Your task to perform on an android device: Search for sushi restaurants on Maps Image 0: 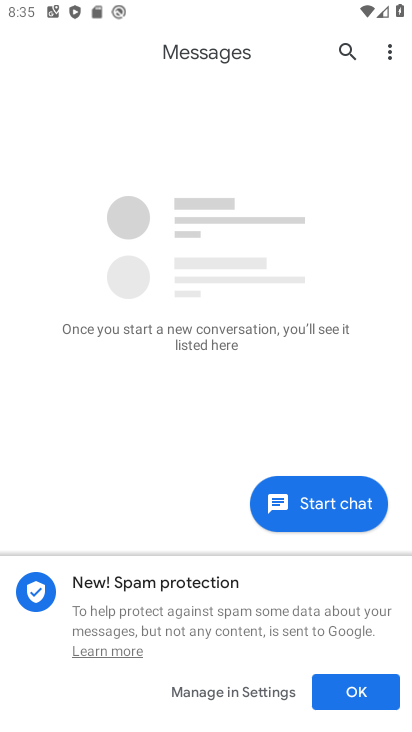
Step 0: press home button
Your task to perform on an android device: Search for sushi restaurants on Maps Image 1: 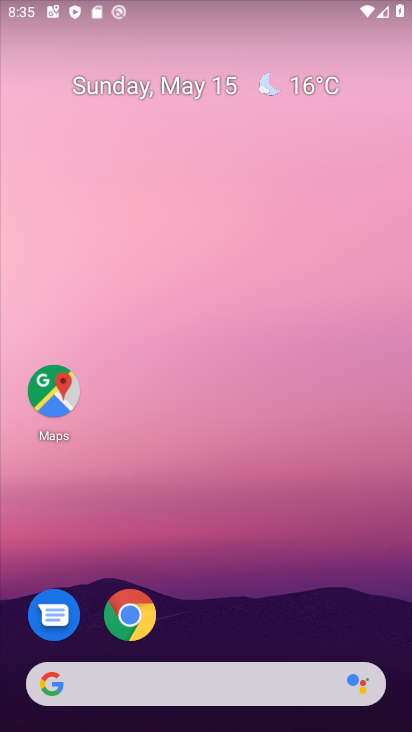
Step 1: click (47, 390)
Your task to perform on an android device: Search for sushi restaurants on Maps Image 2: 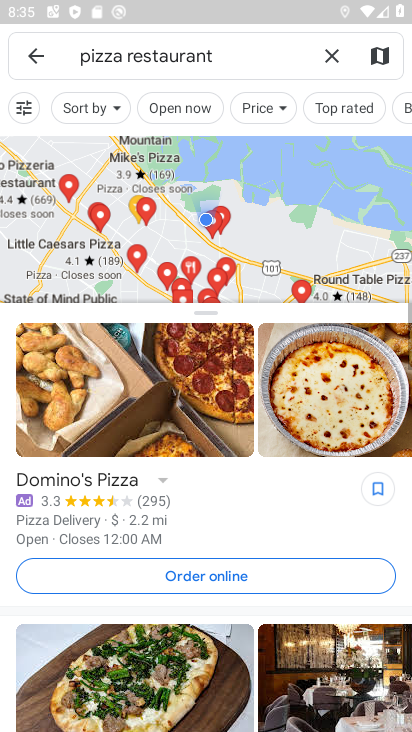
Step 2: click (329, 50)
Your task to perform on an android device: Search for sushi restaurants on Maps Image 3: 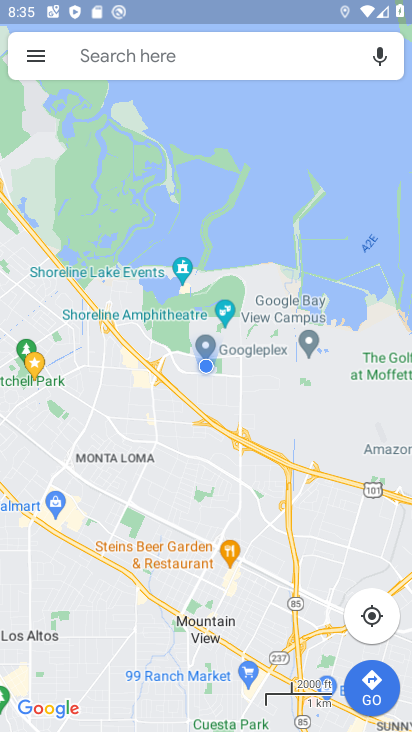
Step 3: click (253, 59)
Your task to perform on an android device: Search for sushi restaurants on Maps Image 4: 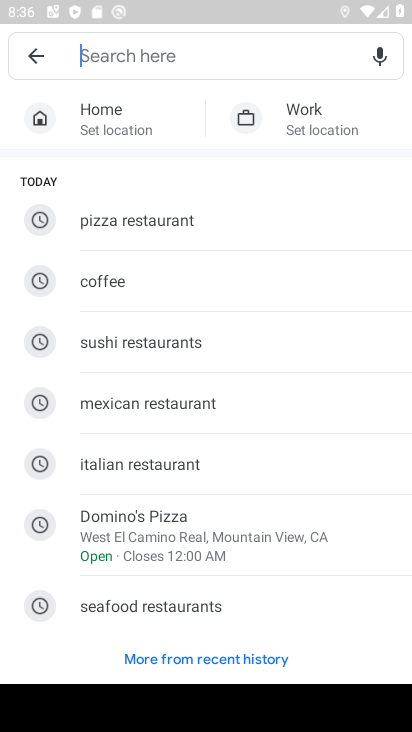
Step 4: click (168, 339)
Your task to perform on an android device: Search for sushi restaurants on Maps Image 5: 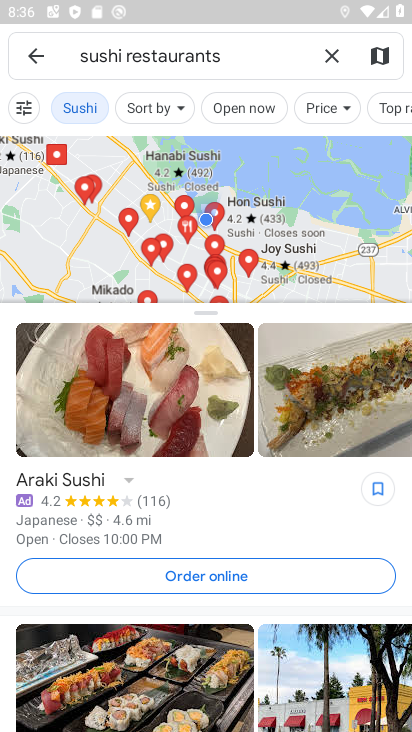
Step 5: task complete